Your task to perform on an android device: Open accessibility settings Image 0: 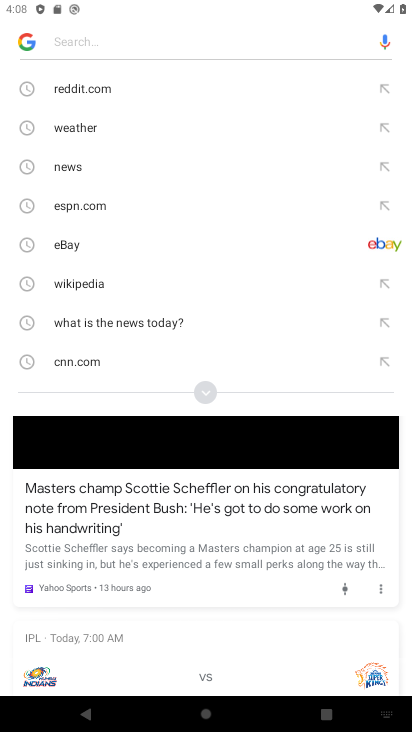
Step 0: click (217, 722)
Your task to perform on an android device: Open accessibility settings Image 1: 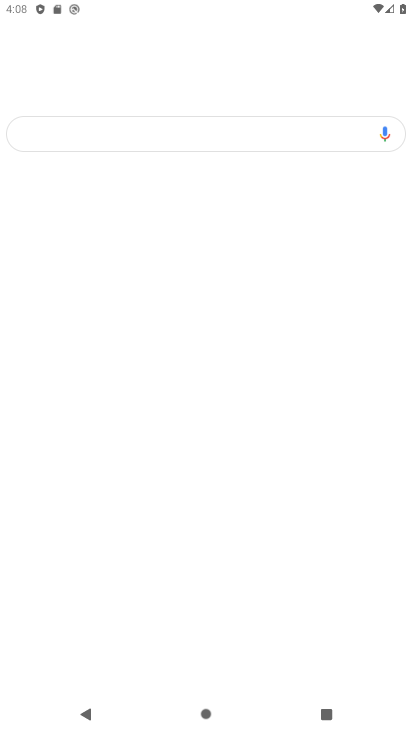
Step 1: click (207, 718)
Your task to perform on an android device: Open accessibility settings Image 2: 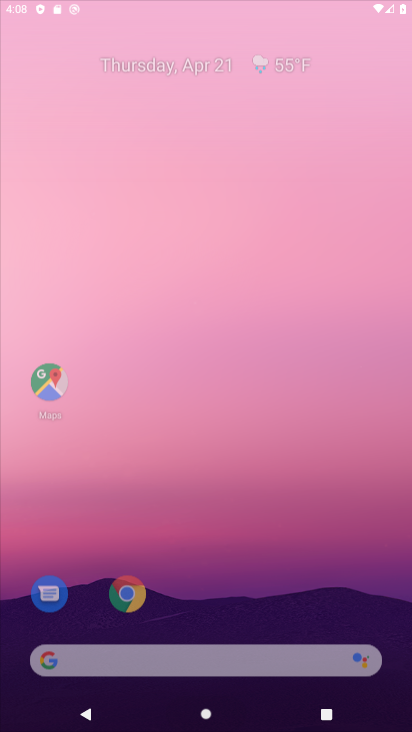
Step 2: click (207, 712)
Your task to perform on an android device: Open accessibility settings Image 3: 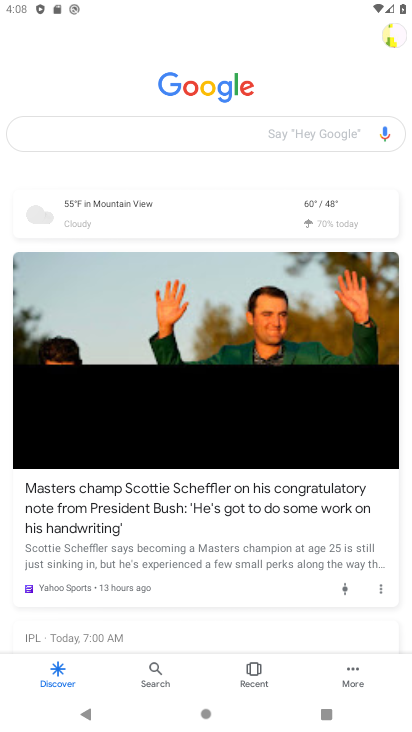
Step 3: click (215, 725)
Your task to perform on an android device: Open accessibility settings Image 4: 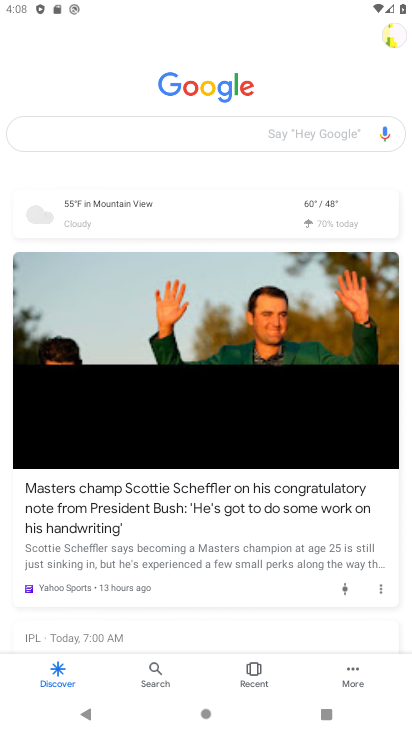
Step 4: click (204, 708)
Your task to perform on an android device: Open accessibility settings Image 5: 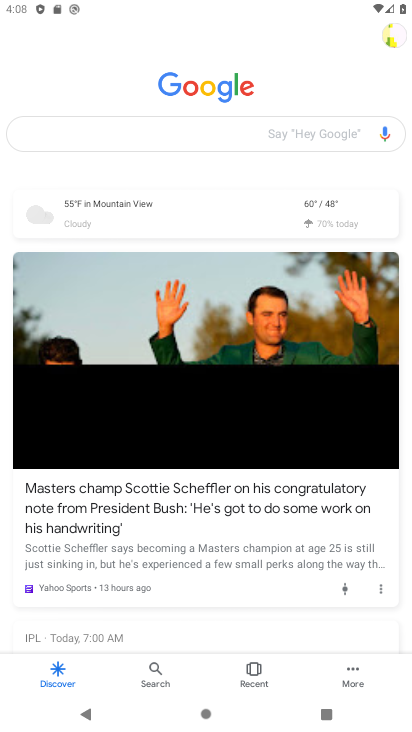
Step 5: click (197, 716)
Your task to perform on an android device: Open accessibility settings Image 6: 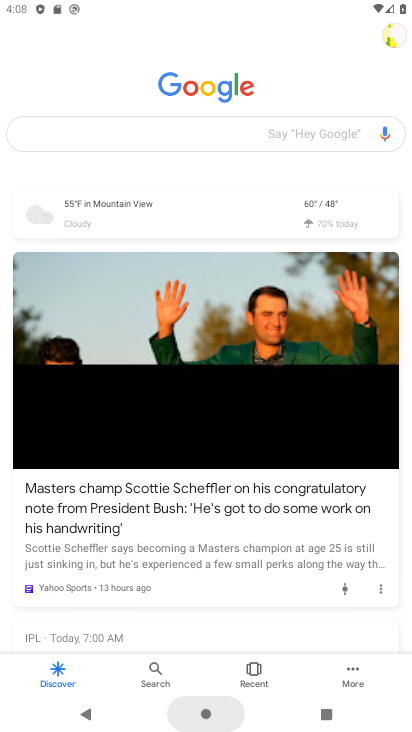
Step 6: click (205, 713)
Your task to perform on an android device: Open accessibility settings Image 7: 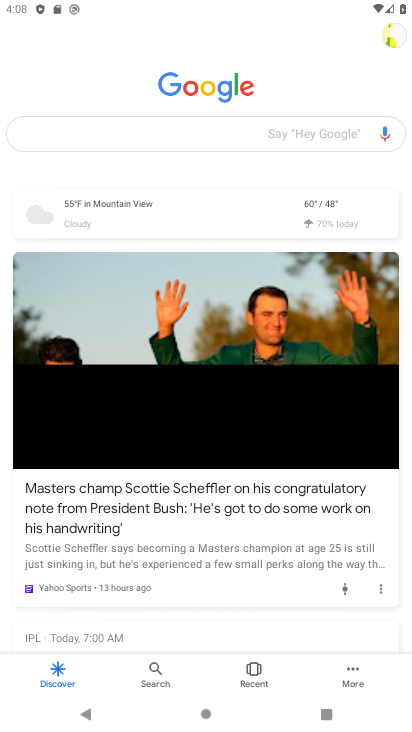
Step 7: click (207, 720)
Your task to perform on an android device: Open accessibility settings Image 8: 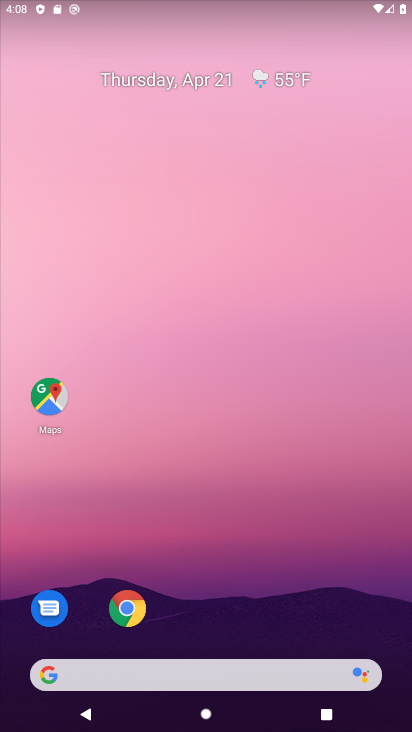
Step 8: drag from (225, 643) to (342, 253)
Your task to perform on an android device: Open accessibility settings Image 9: 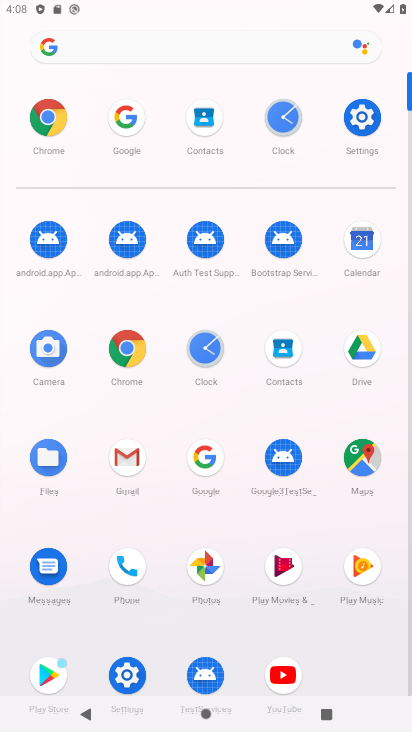
Step 9: click (372, 123)
Your task to perform on an android device: Open accessibility settings Image 10: 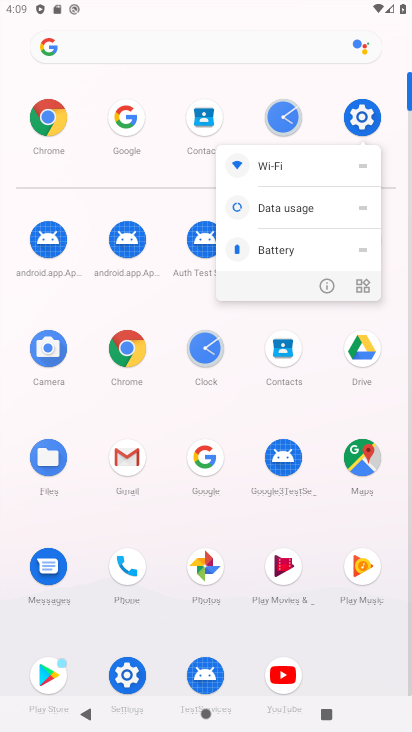
Step 10: click (376, 123)
Your task to perform on an android device: Open accessibility settings Image 11: 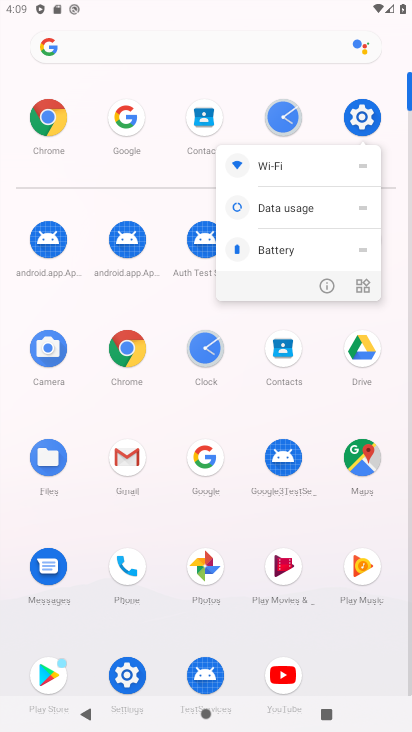
Step 11: click (351, 106)
Your task to perform on an android device: Open accessibility settings Image 12: 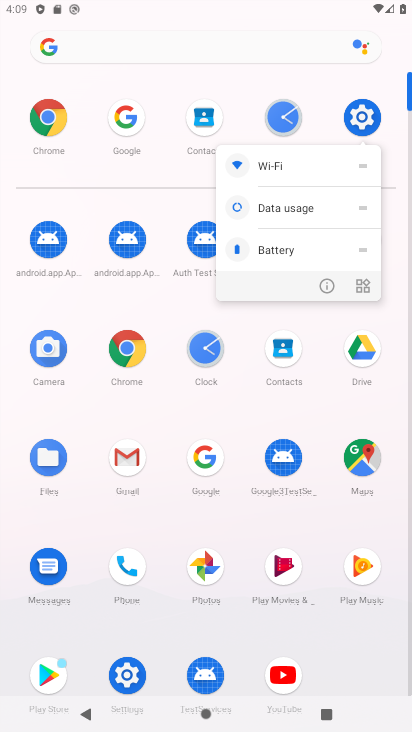
Step 12: click (376, 120)
Your task to perform on an android device: Open accessibility settings Image 13: 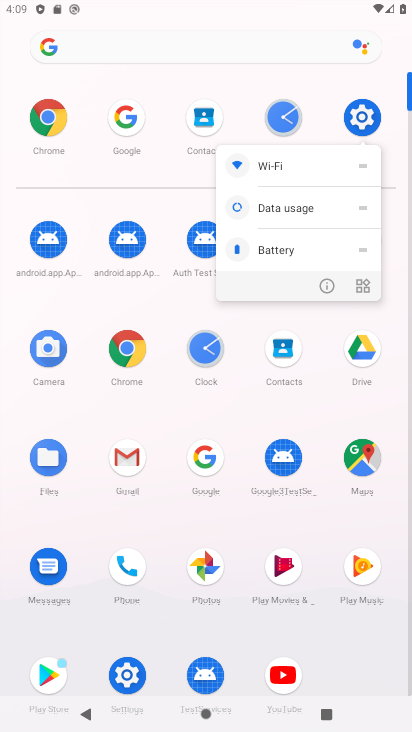
Step 13: drag from (376, 120) to (358, 72)
Your task to perform on an android device: Open accessibility settings Image 14: 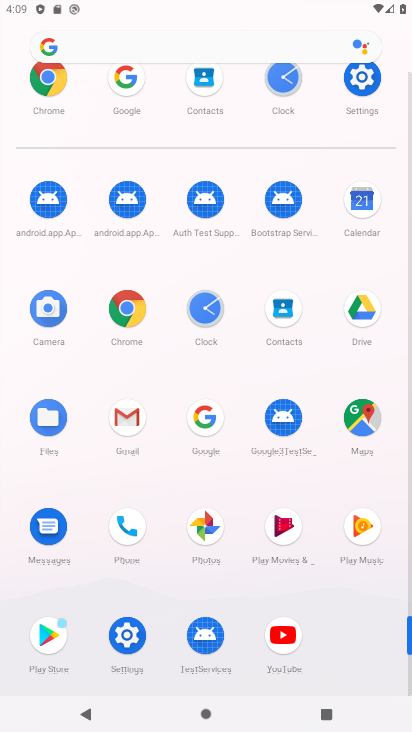
Step 14: click (365, 93)
Your task to perform on an android device: Open accessibility settings Image 15: 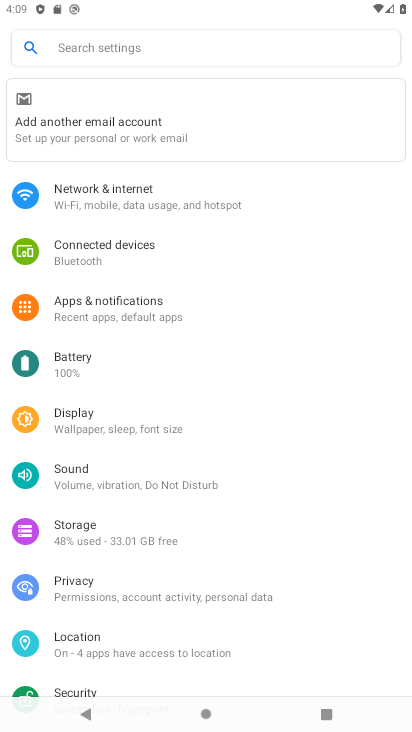
Step 15: drag from (108, 579) to (228, 147)
Your task to perform on an android device: Open accessibility settings Image 16: 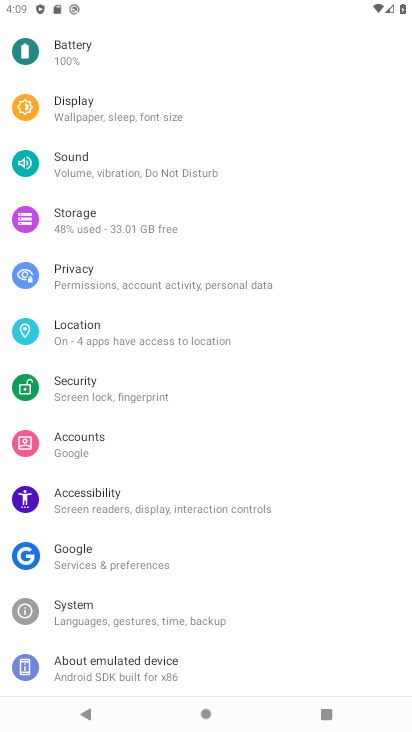
Step 16: click (139, 490)
Your task to perform on an android device: Open accessibility settings Image 17: 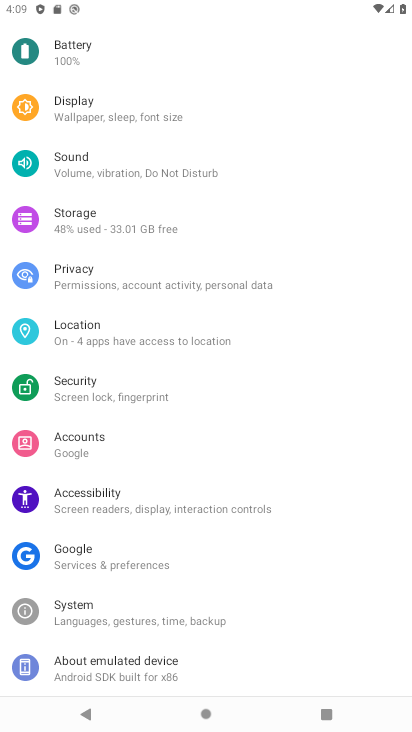
Step 17: click (139, 490)
Your task to perform on an android device: Open accessibility settings Image 18: 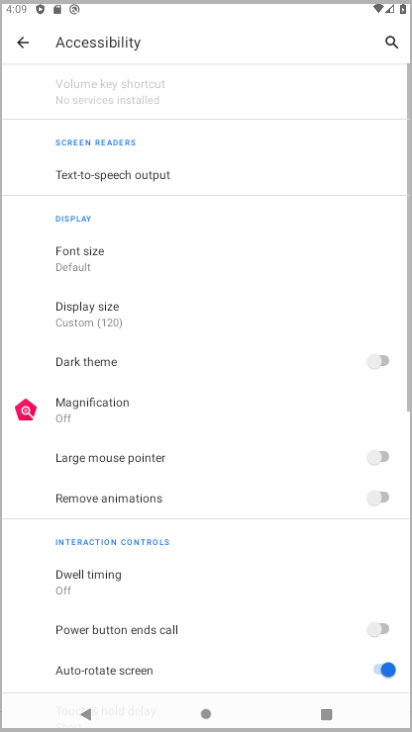
Step 18: task complete